Your task to perform on an android device: make emails show in primary in the gmail app Image 0: 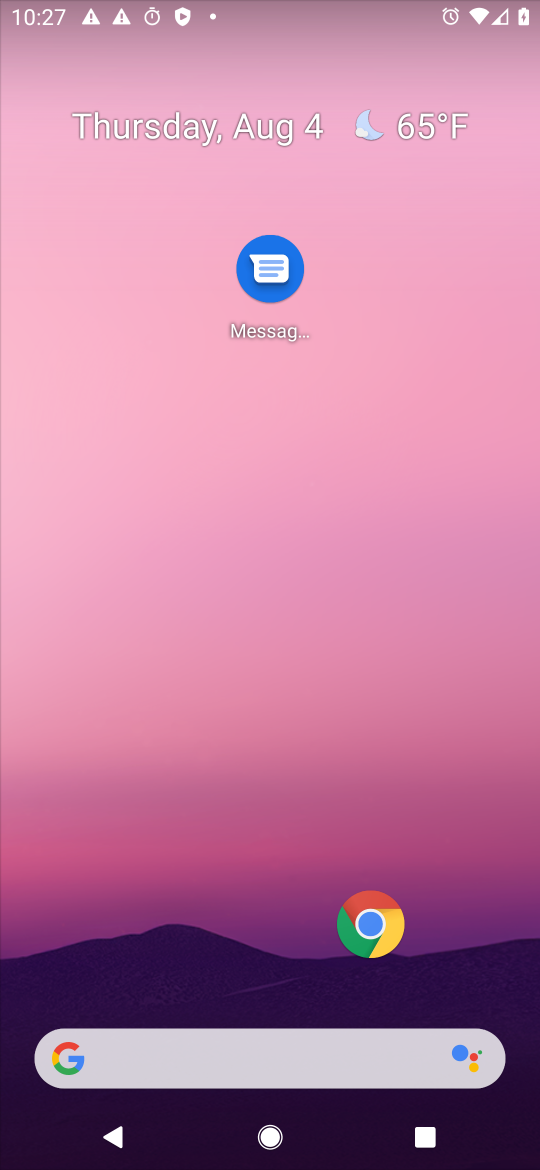
Step 0: drag from (273, 978) to (422, 256)
Your task to perform on an android device: make emails show in primary in the gmail app Image 1: 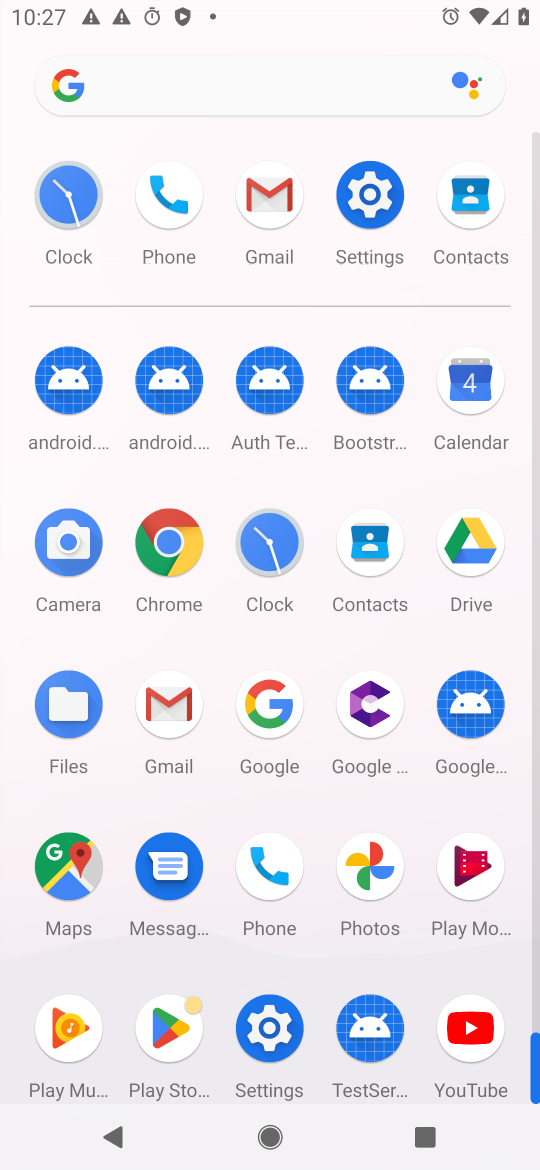
Step 1: drag from (275, 964) to (302, 125)
Your task to perform on an android device: make emails show in primary in the gmail app Image 2: 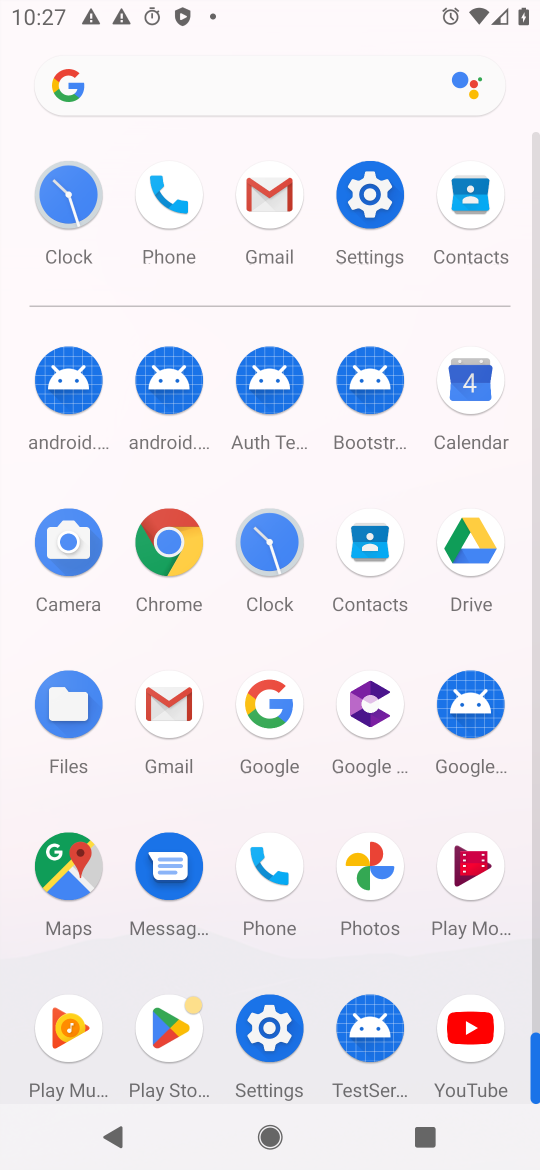
Step 2: click (291, 372)
Your task to perform on an android device: make emails show in primary in the gmail app Image 3: 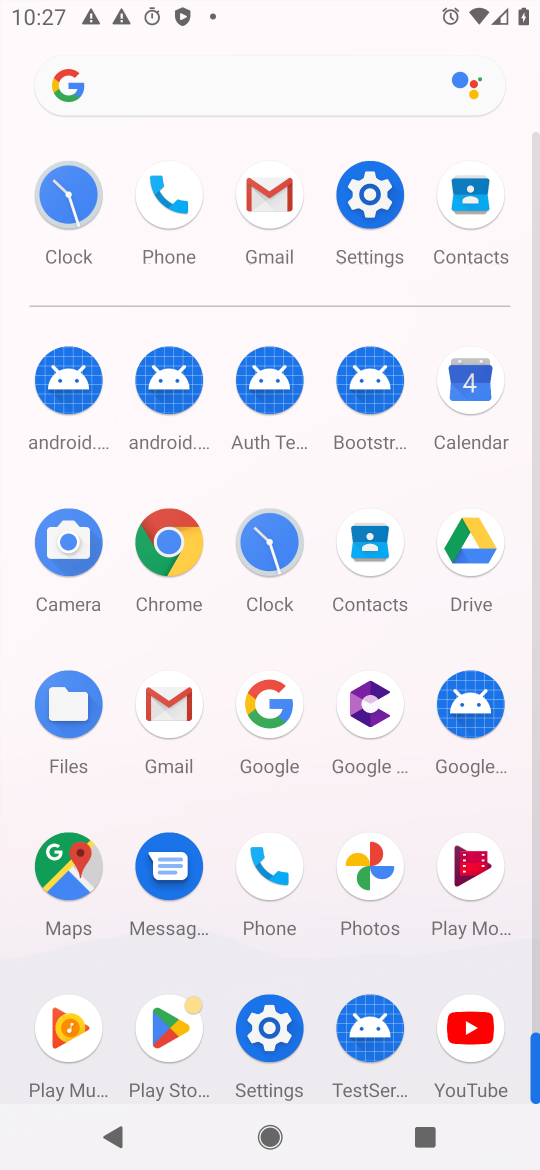
Step 3: click (266, 197)
Your task to perform on an android device: make emails show in primary in the gmail app Image 4: 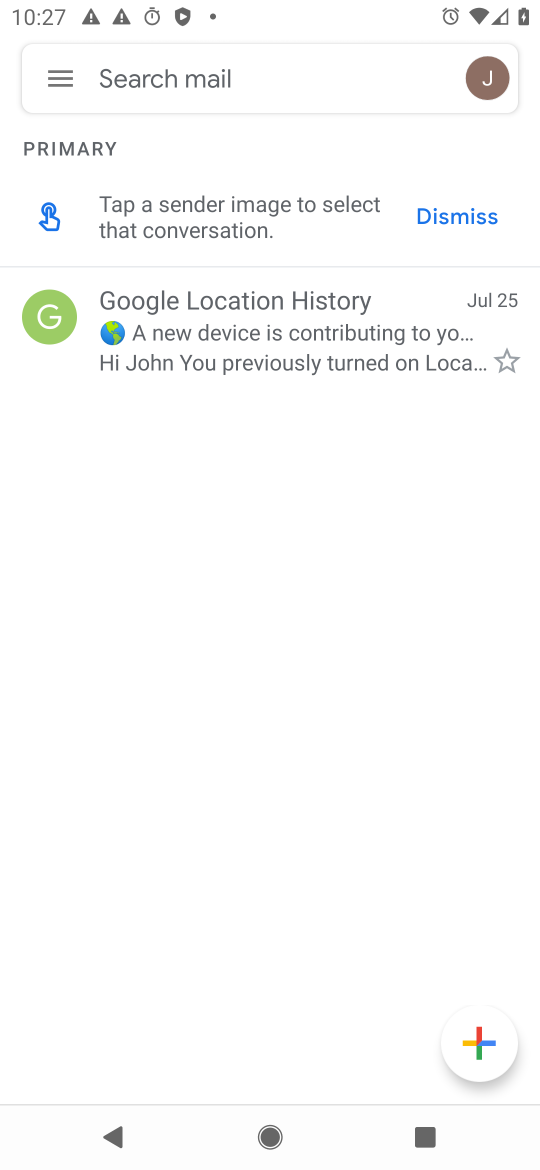
Step 4: click (48, 70)
Your task to perform on an android device: make emails show in primary in the gmail app Image 5: 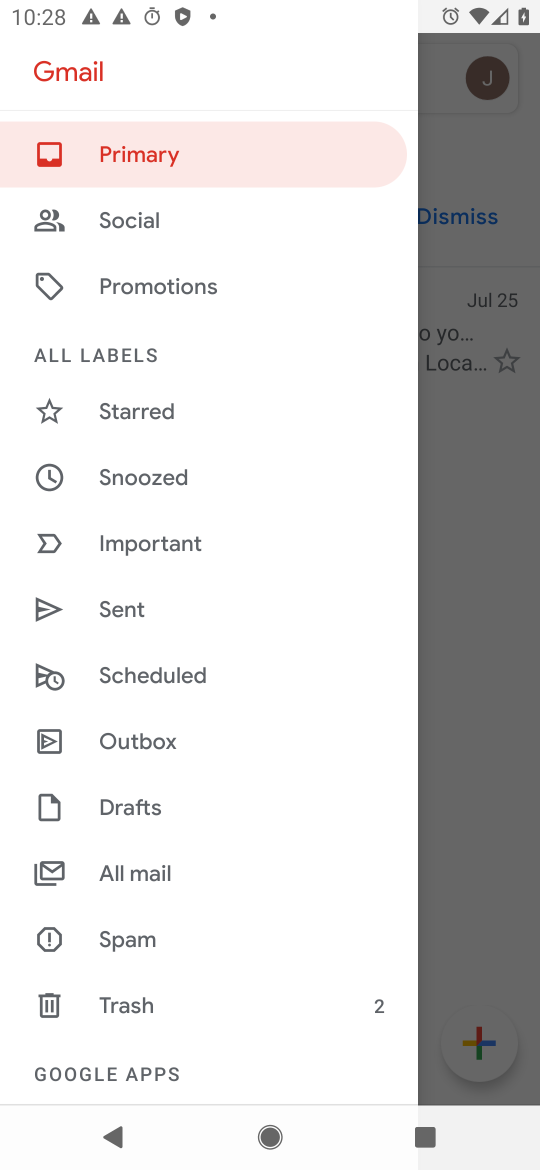
Step 5: drag from (100, 1041) to (195, 451)
Your task to perform on an android device: make emails show in primary in the gmail app Image 6: 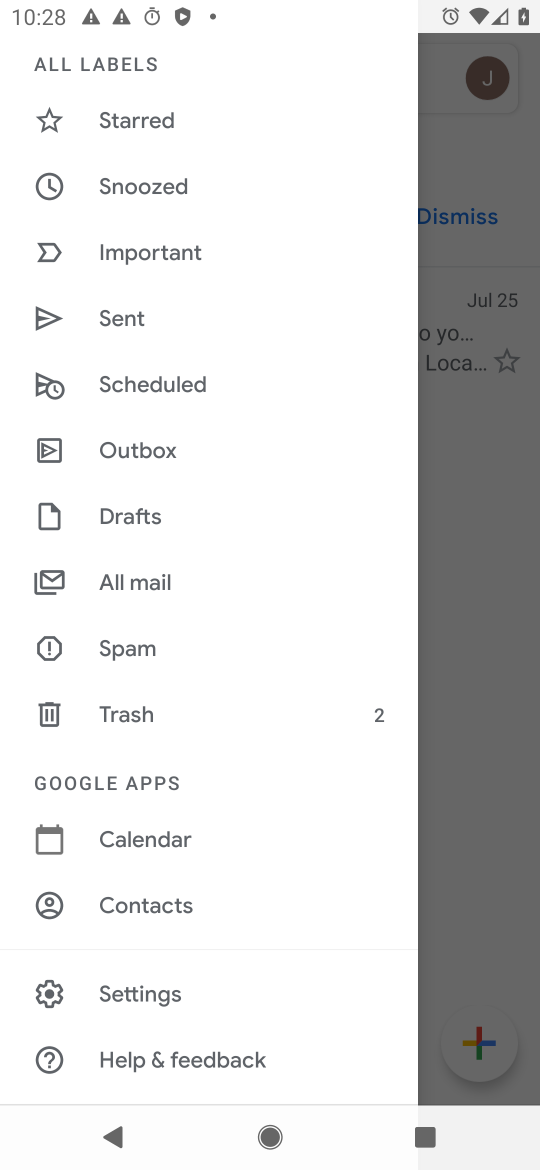
Step 6: drag from (171, 949) to (182, 398)
Your task to perform on an android device: make emails show in primary in the gmail app Image 7: 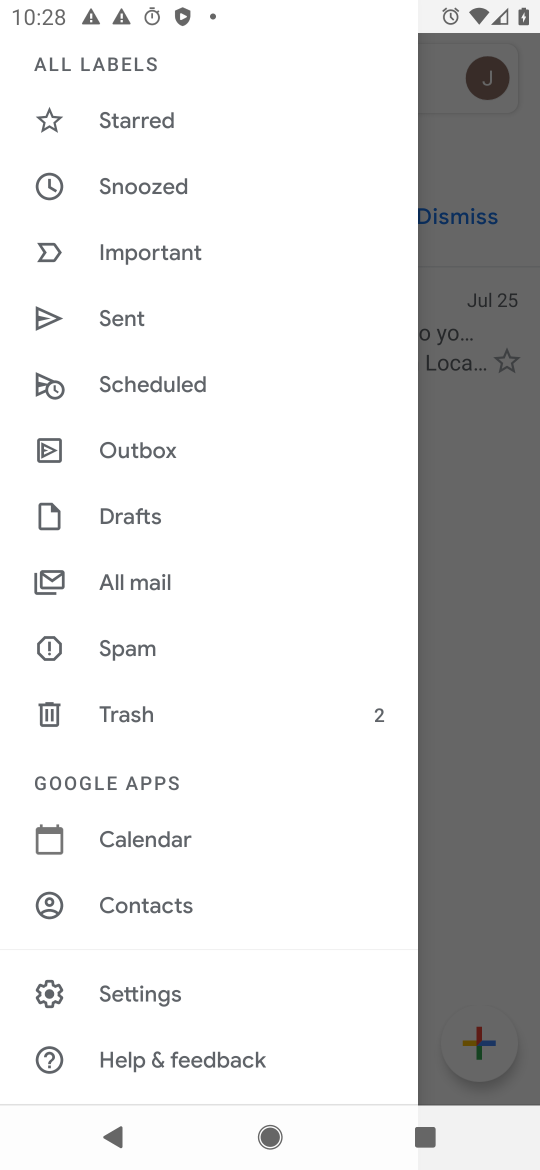
Step 7: drag from (191, 208) to (111, 1016)
Your task to perform on an android device: make emails show in primary in the gmail app Image 8: 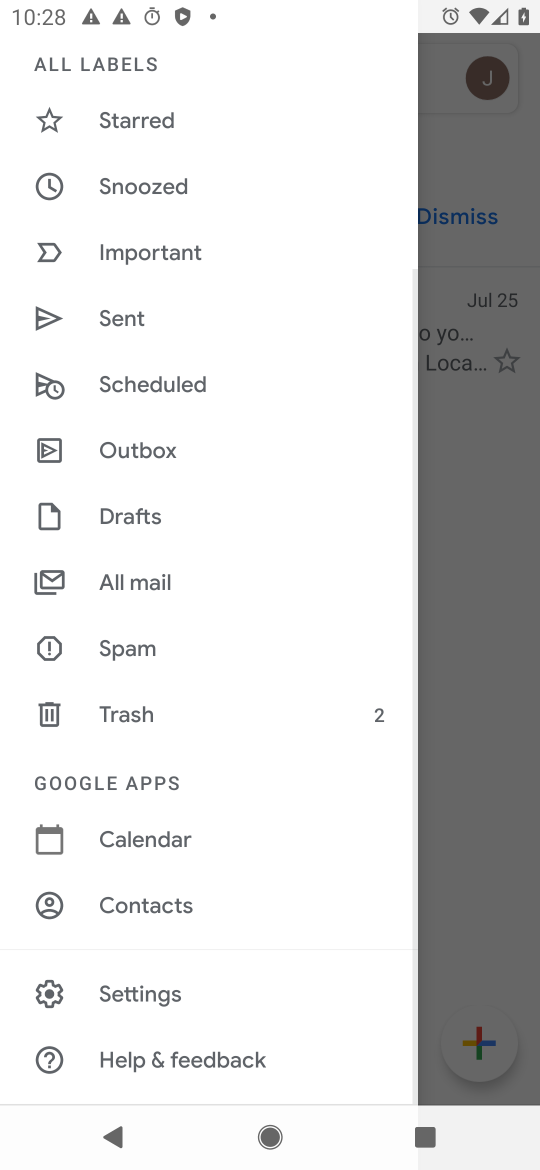
Step 8: drag from (147, 843) to (362, 1169)
Your task to perform on an android device: make emails show in primary in the gmail app Image 9: 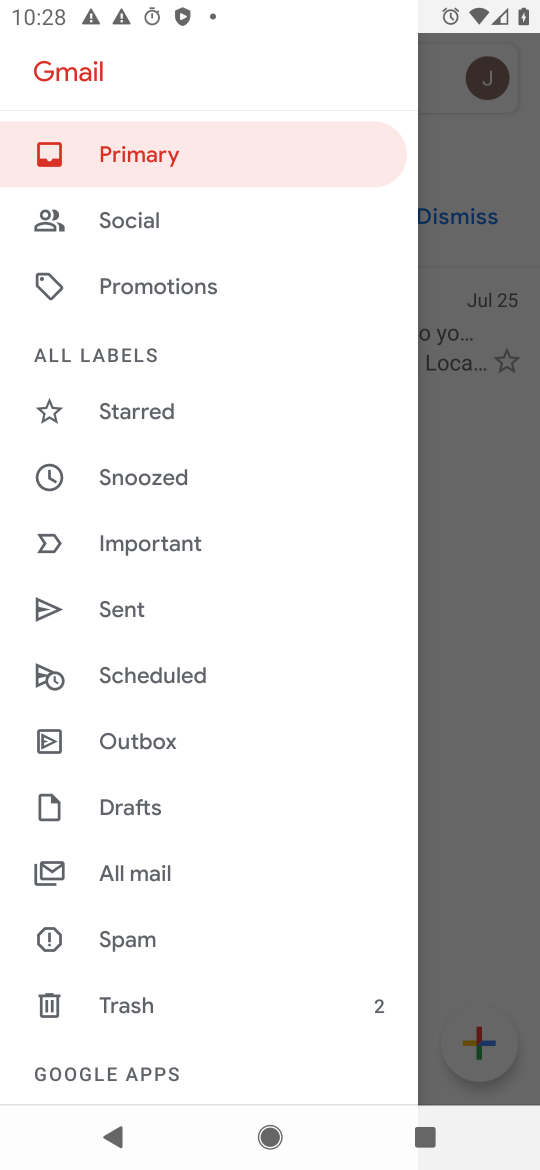
Step 9: drag from (154, 362) to (243, 902)
Your task to perform on an android device: make emails show in primary in the gmail app Image 10: 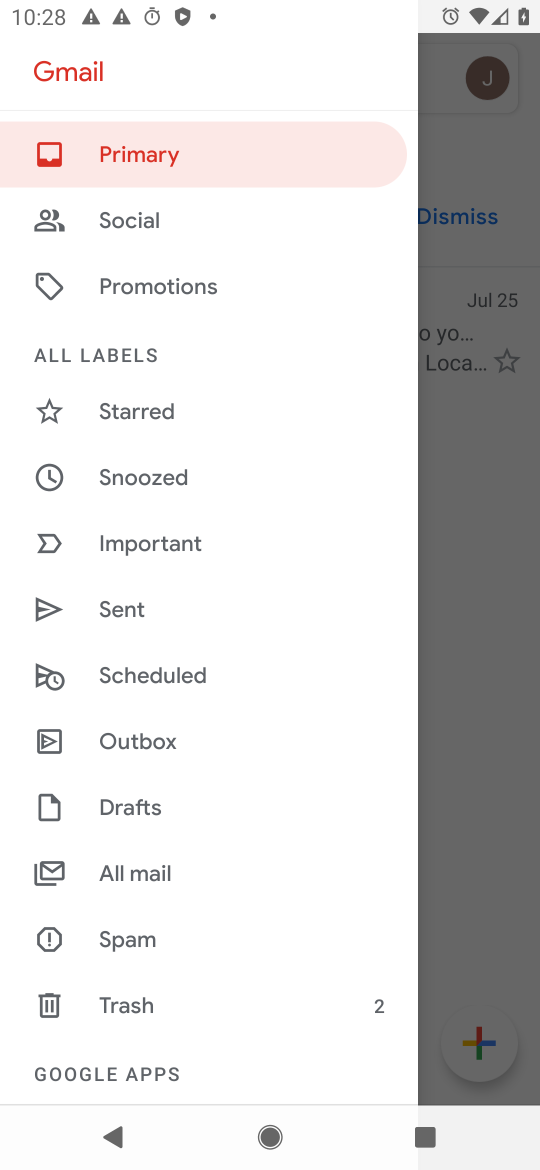
Step 10: drag from (183, 996) to (267, 437)
Your task to perform on an android device: make emails show in primary in the gmail app Image 11: 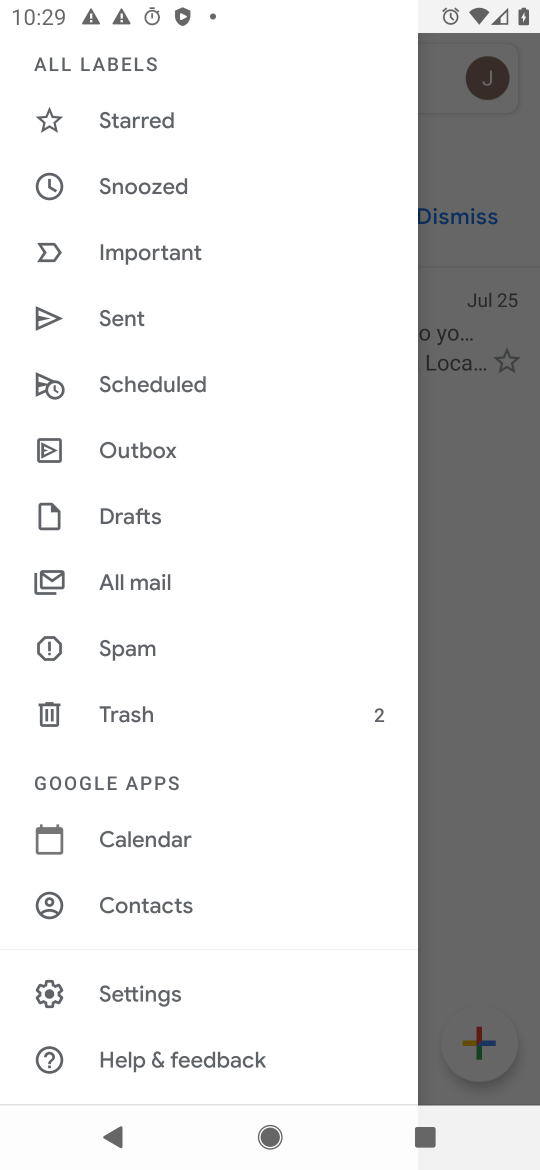
Step 11: drag from (171, 493) to (246, 1145)
Your task to perform on an android device: make emails show in primary in the gmail app Image 12: 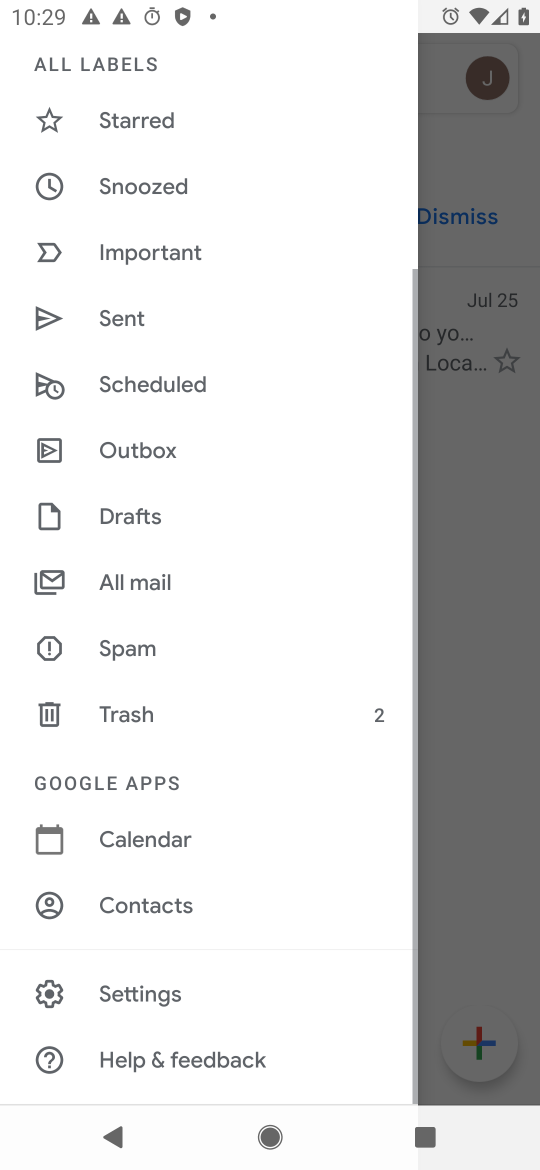
Step 12: drag from (176, 217) to (383, 1120)
Your task to perform on an android device: make emails show in primary in the gmail app Image 13: 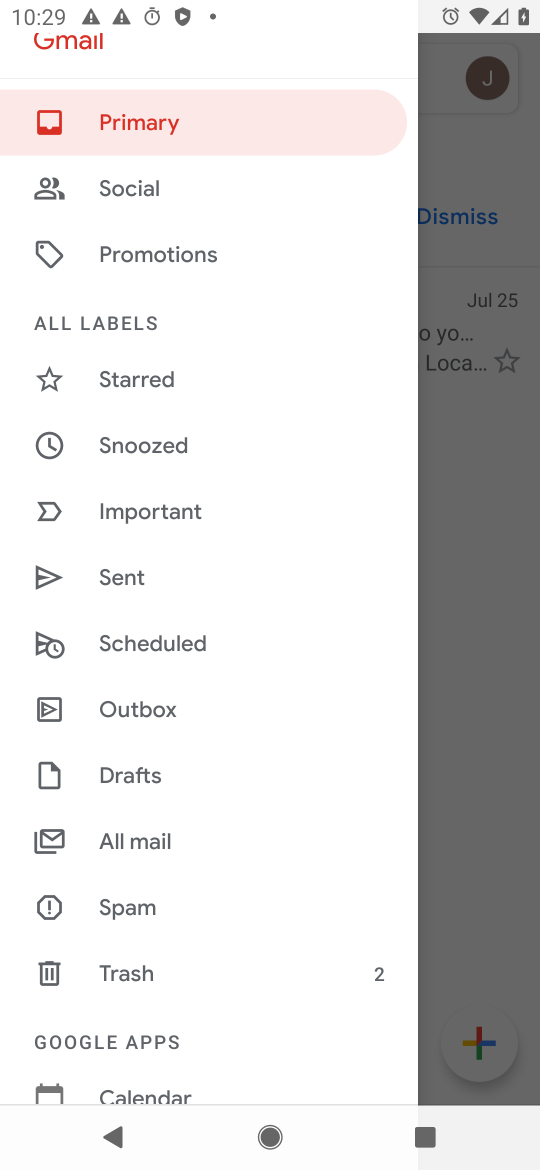
Step 13: click (147, 123)
Your task to perform on an android device: make emails show in primary in the gmail app Image 14: 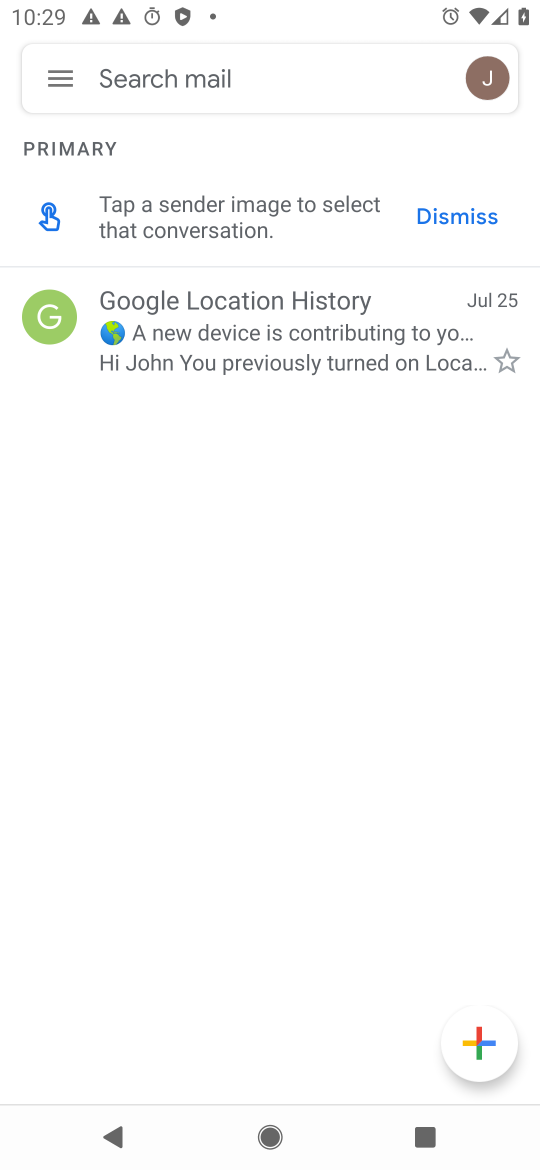
Step 14: drag from (251, 687) to (296, 293)
Your task to perform on an android device: make emails show in primary in the gmail app Image 15: 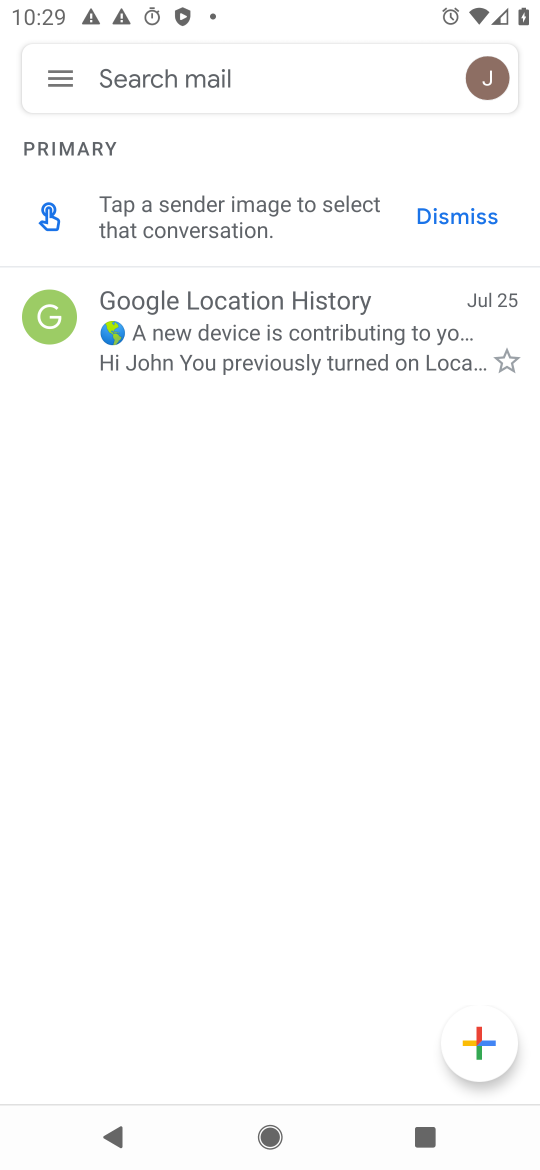
Step 15: drag from (257, 798) to (246, 307)
Your task to perform on an android device: make emails show in primary in the gmail app Image 16: 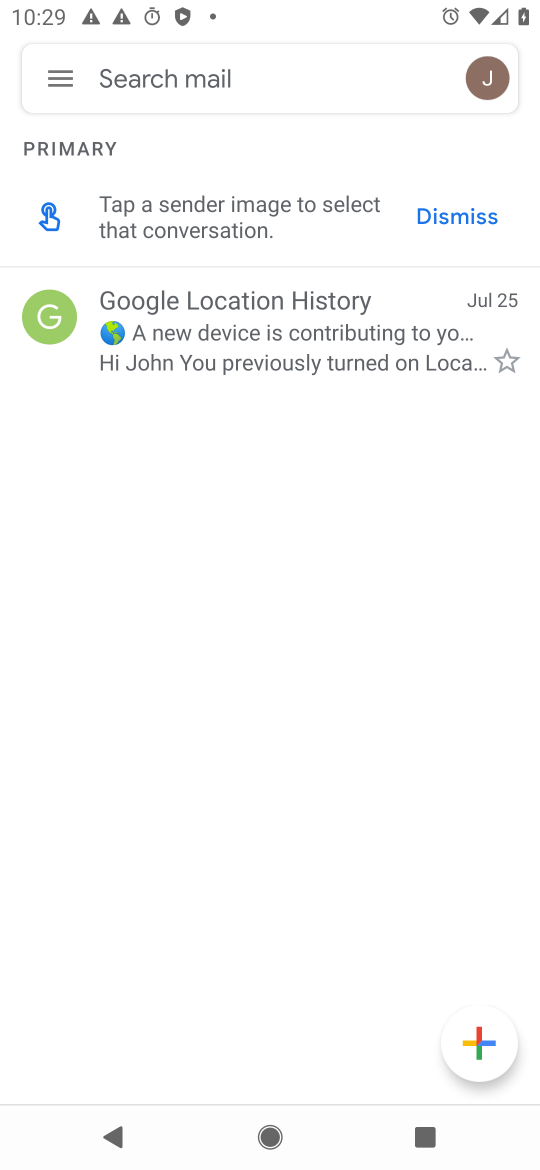
Step 16: drag from (276, 843) to (290, 441)
Your task to perform on an android device: make emails show in primary in the gmail app Image 17: 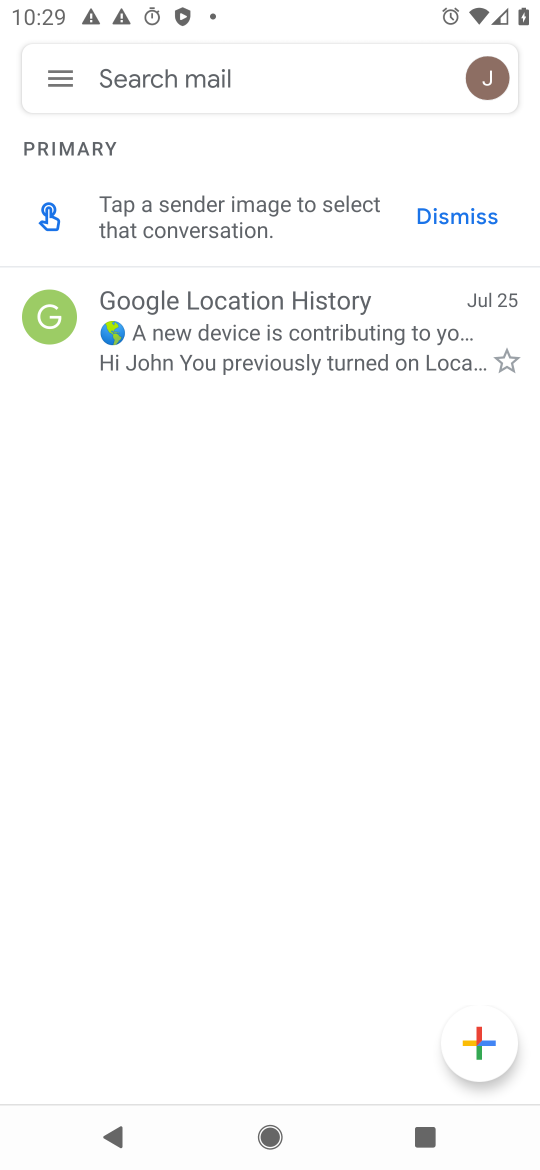
Step 17: drag from (261, 878) to (278, 369)
Your task to perform on an android device: make emails show in primary in the gmail app Image 18: 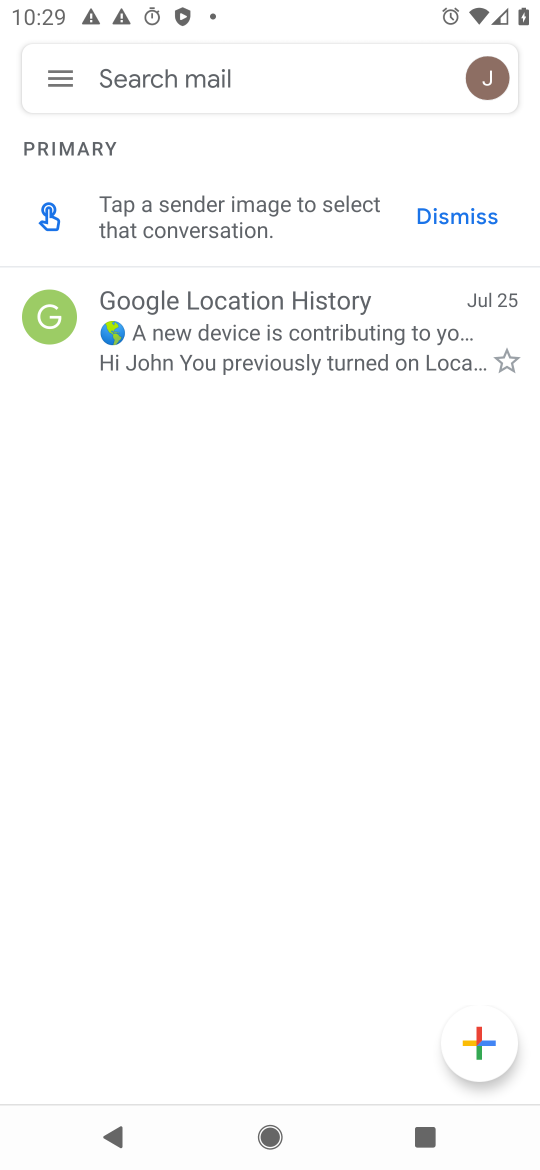
Step 18: click (458, 211)
Your task to perform on an android device: make emails show in primary in the gmail app Image 19: 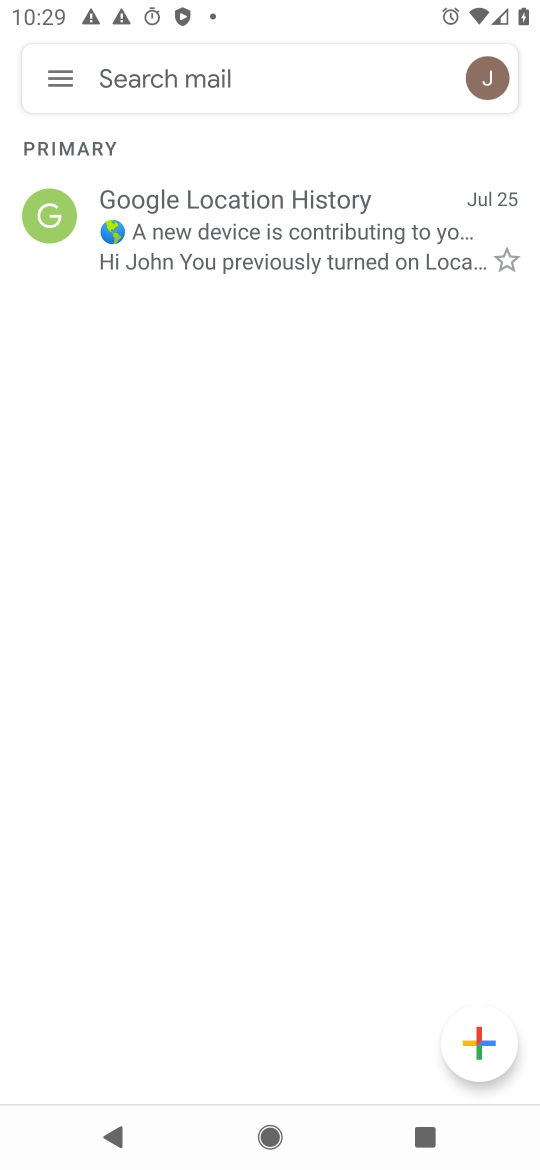
Step 19: drag from (287, 459) to (308, 329)
Your task to perform on an android device: make emails show in primary in the gmail app Image 20: 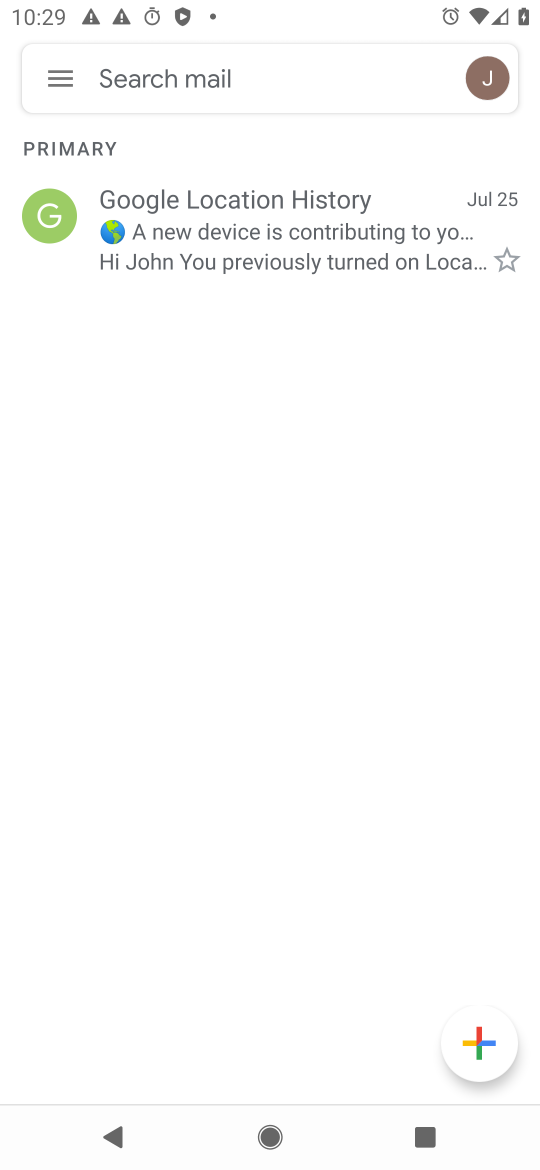
Step 20: click (60, 73)
Your task to perform on an android device: make emails show in primary in the gmail app Image 21: 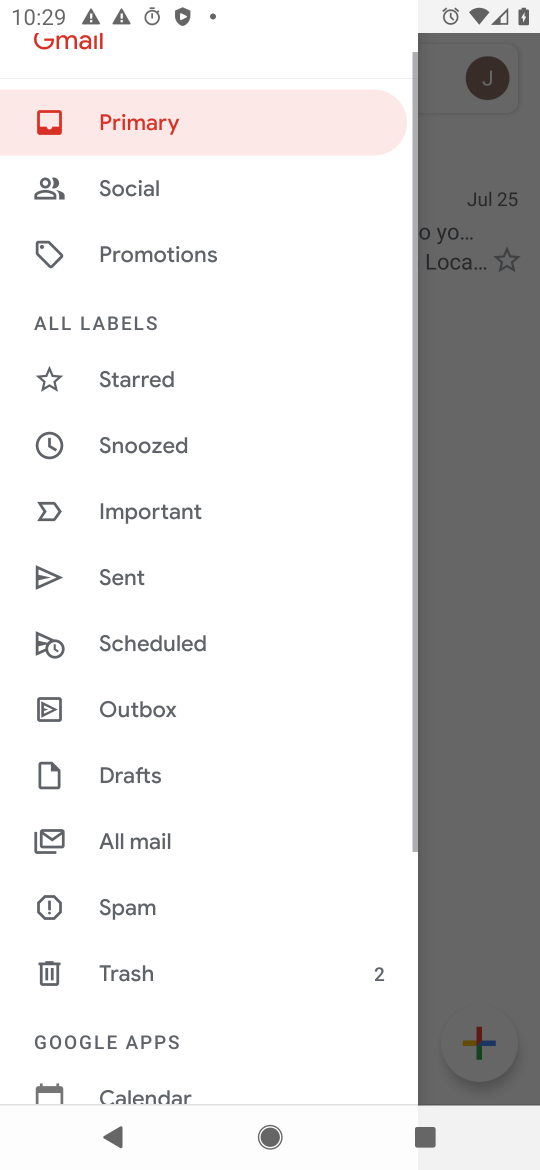
Step 21: click (166, 128)
Your task to perform on an android device: make emails show in primary in the gmail app Image 22: 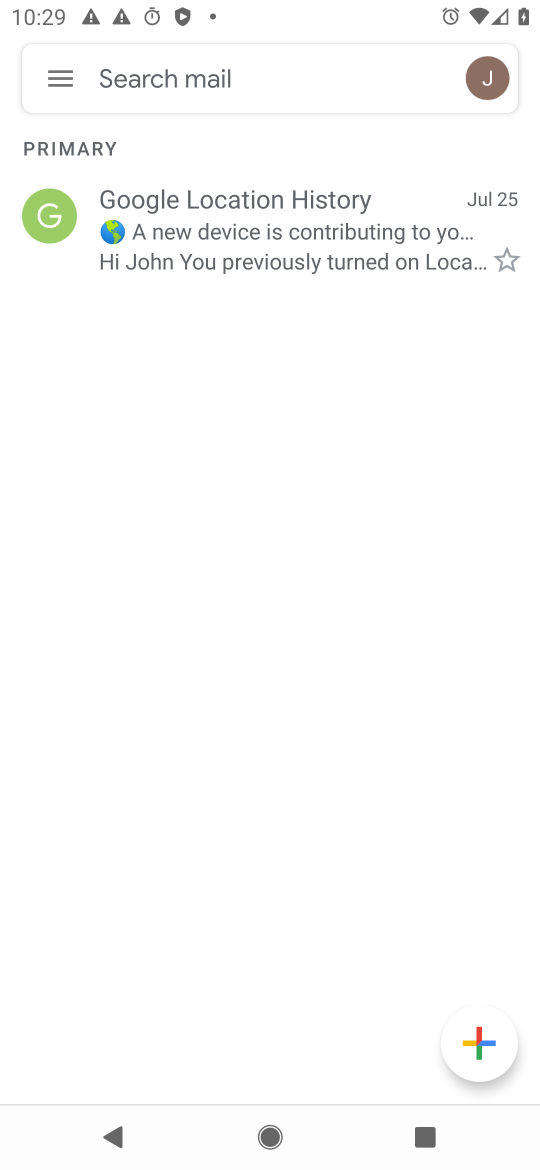
Step 22: click (483, 646)
Your task to perform on an android device: make emails show in primary in the gmail app Image 23: 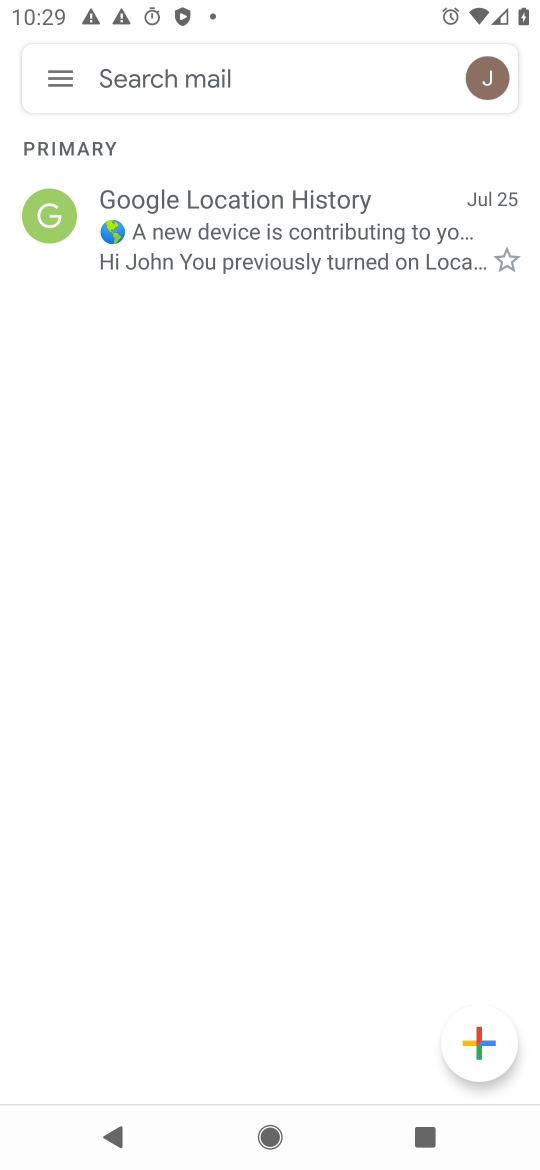
Step 23: drag from (315, 689) to (375, 445)
Your task to perform on an android device: make emails show in primary in the gmail app Image 24: 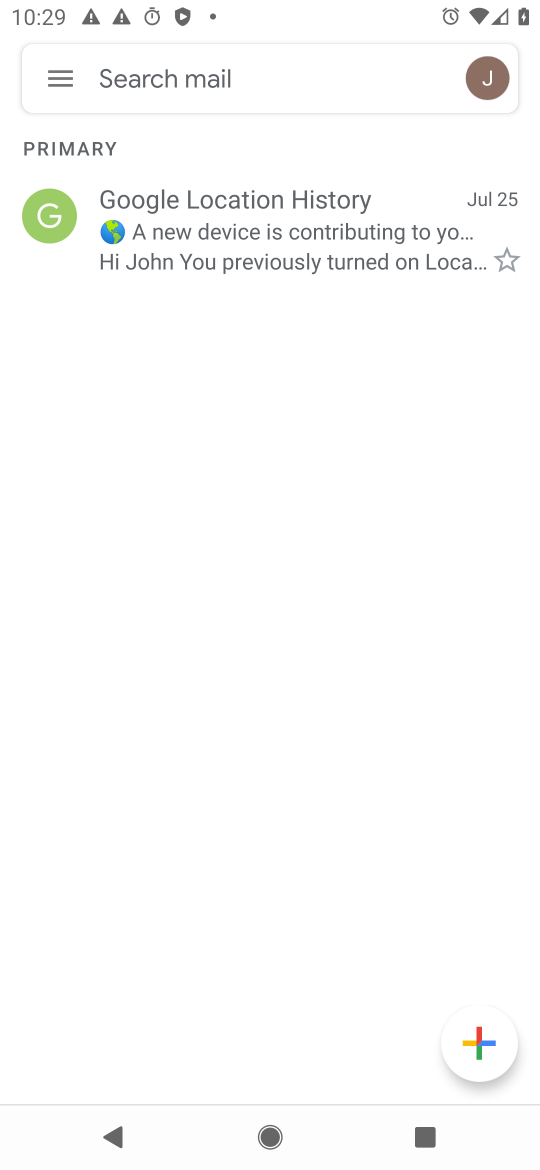
Step 24: click (286, 689)
Your task to perform on an android device: make emails show in primary in the gmail app Image 25: 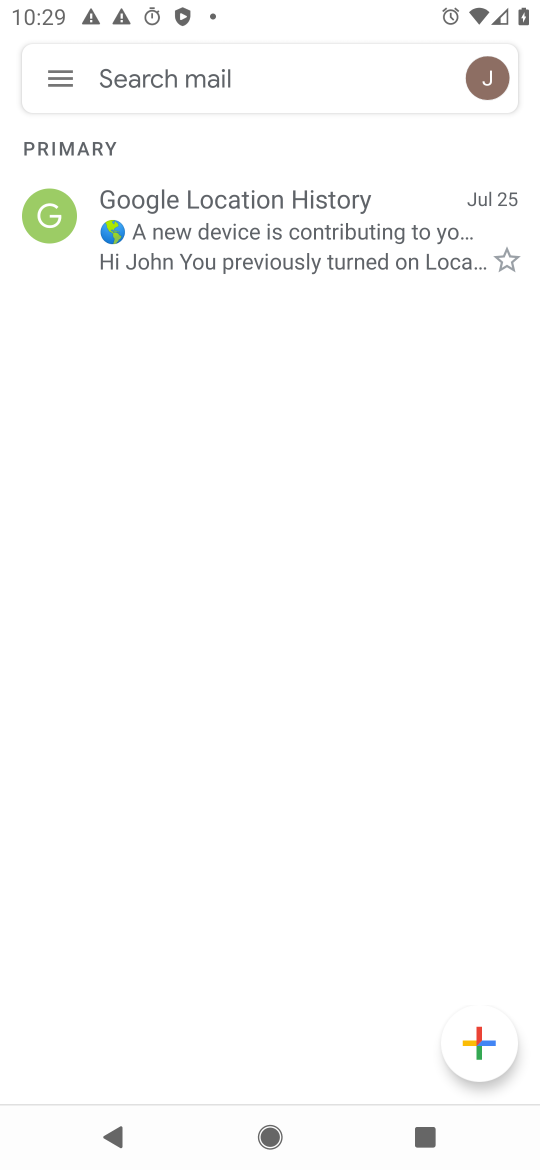
Step 25: task complete